Your task to perform on an android device: Open Yahoo.com Image 0: 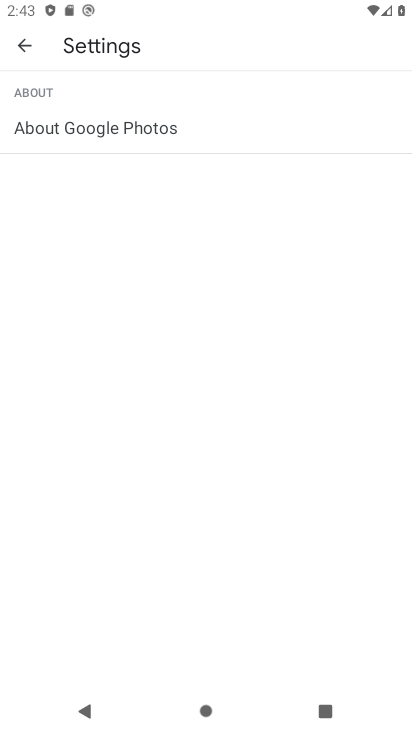
Step 0: press home button
Your task to perform on an android device: Open Yahoo.com Image 1: 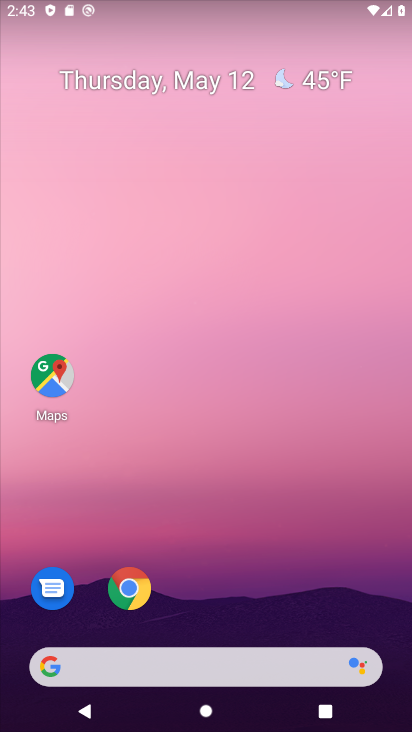
Step 1: click (130, 598)
Your task to perform on an android device: Open Yahoo.com Image 2: 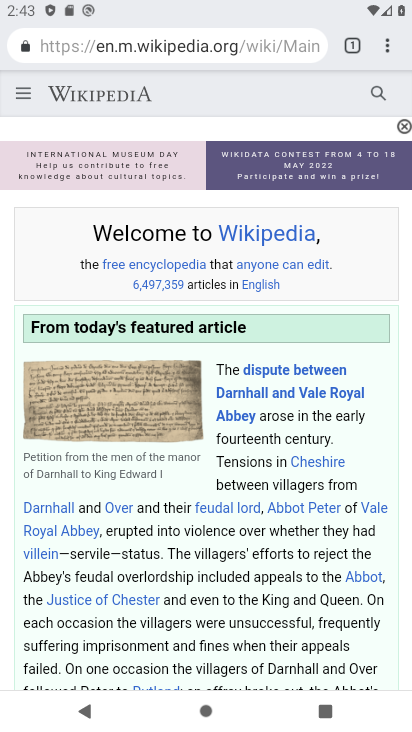
Step 2: press back button
Your task to perform on an android device: Open Yahoo.com Image 3: 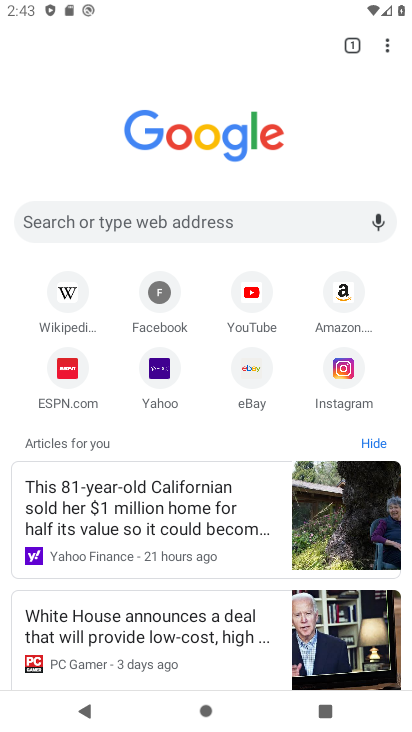
Step 3: click (144, 384)
Your task to perform on an android device: Open Yahoo.com Image 4: 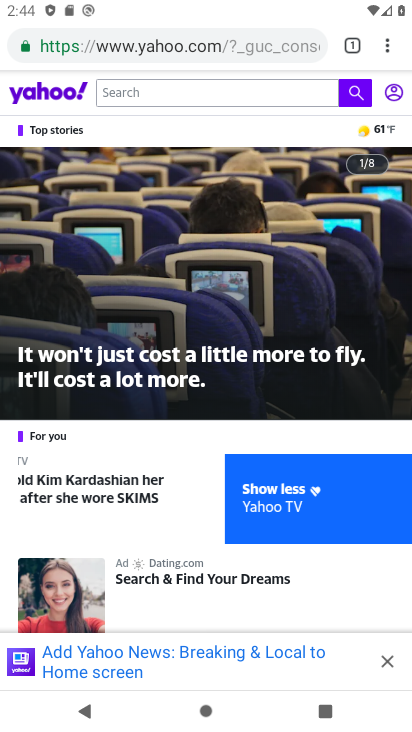
Step 4: task complete